Your task to perform on an android device: Go to Reddit.com Image 0: 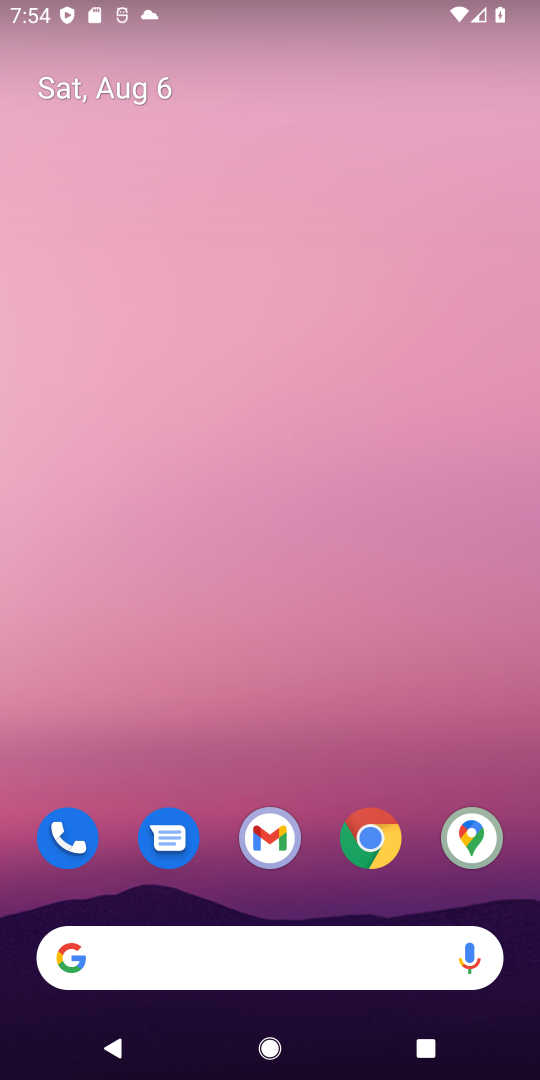
Step 0: click (356, 839)
Your task to perform on an android device: Go to Reddit.com Image 1: 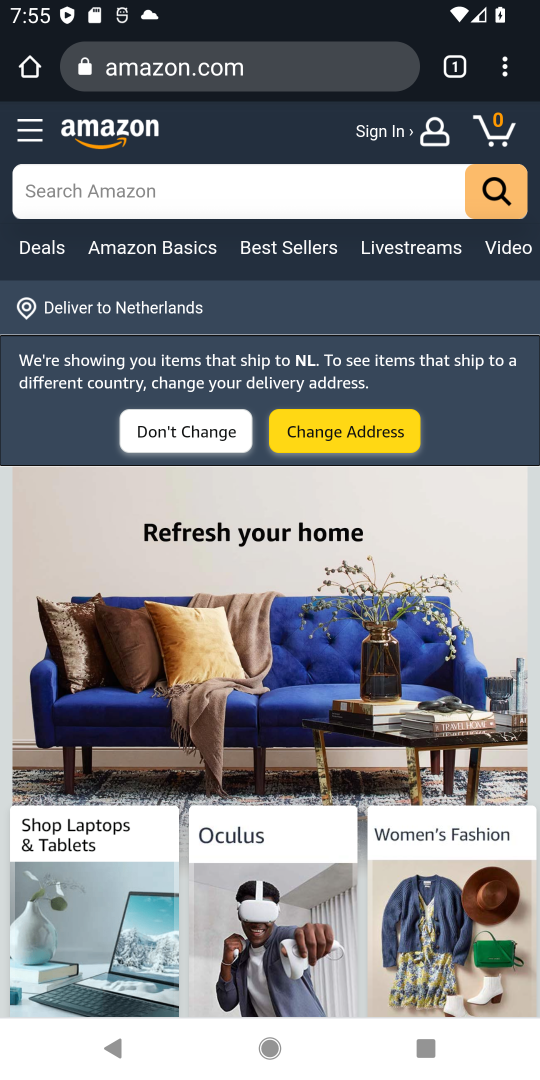
Step 1: click (214, 77)
Your task to perform on an android device: Go to Reddit.com Image 2: 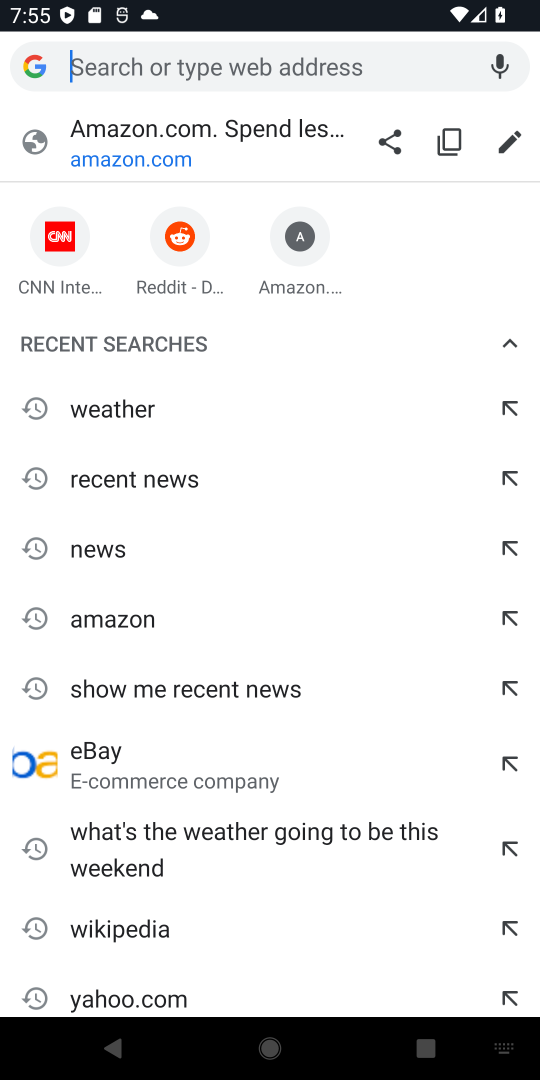
Step 2: type "www.reddit.com"
Your task to perform on an android device: Go to Reddit.com Image 3: 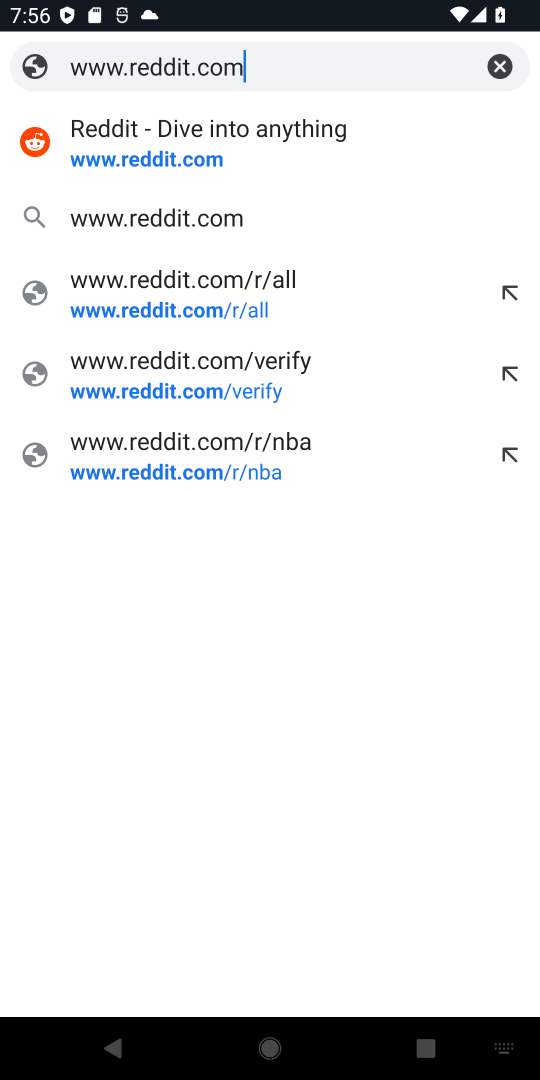
Step 3: click (105, 156)
Your task to perform on an android device: Go to Reddit.com Image 4: 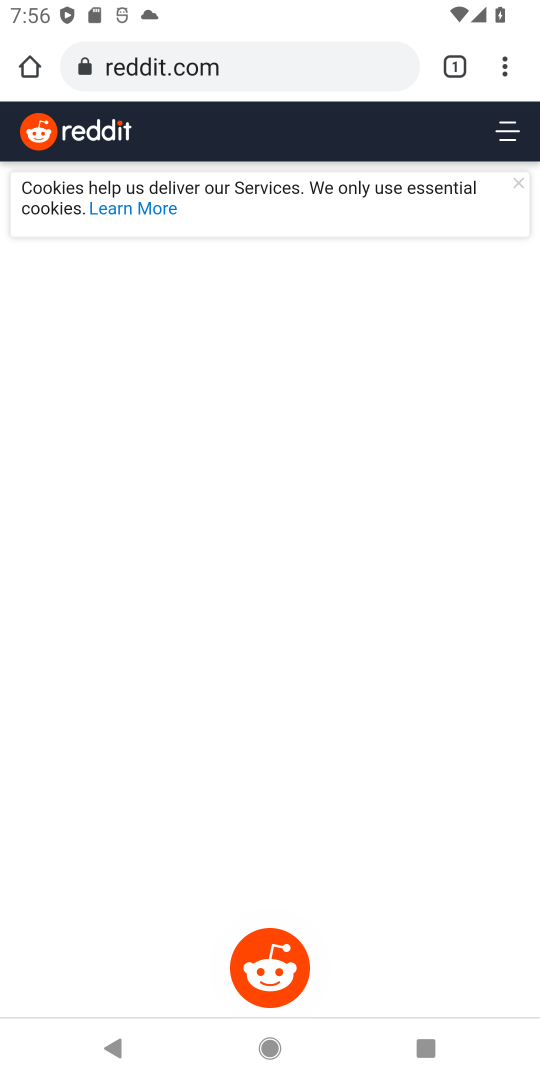
Step 4: task complete